Your task to perform on an android device: choose inbox layout in the gmail app Image 0: 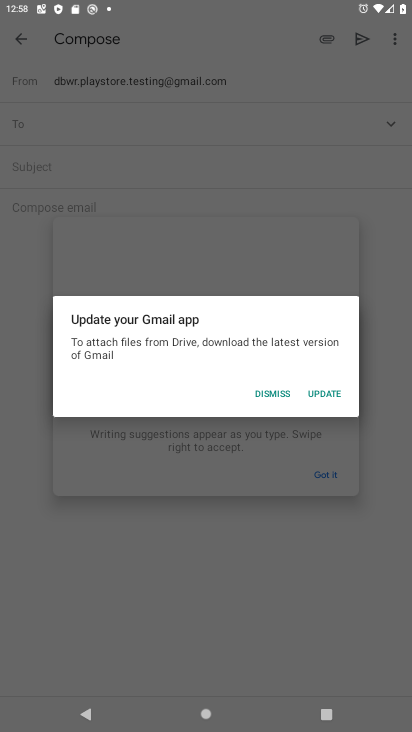
Step 0: press home button
Your task to perform on an android device: choose inbox layout in the gmail app Image 1: 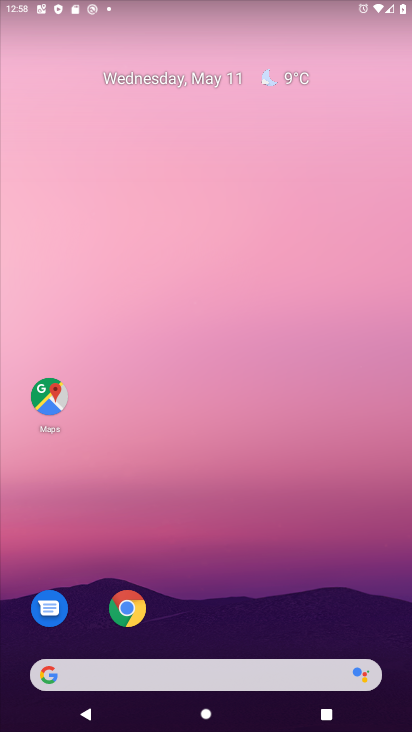
Step 1: drag from (308, 608) to (264, 97)
Your task to perform on an android device: choose inbox layout in the gmail app Image 2: 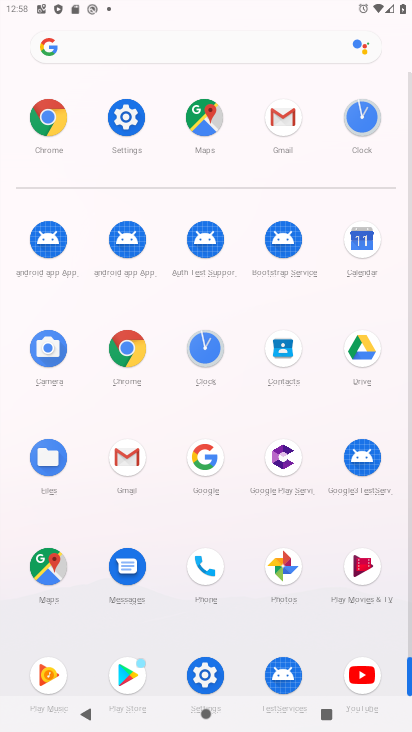
Step 2: click (124, 466)
Your task to perform on an android device: choose inbox layout in the gmail app Image 3: 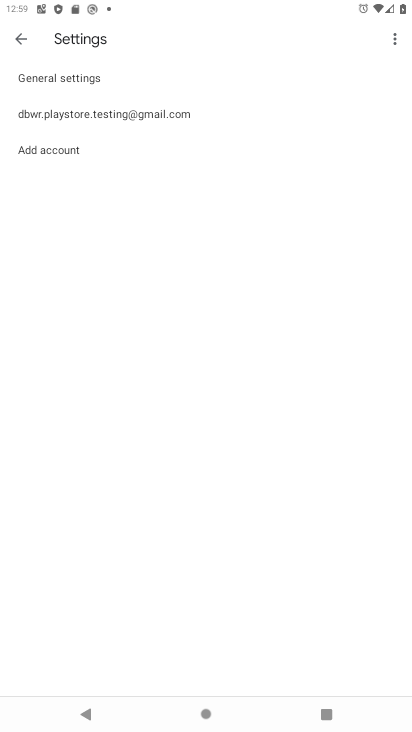
Step 3: task complete